Your task to perform on an android device: change timer sound Image 0: 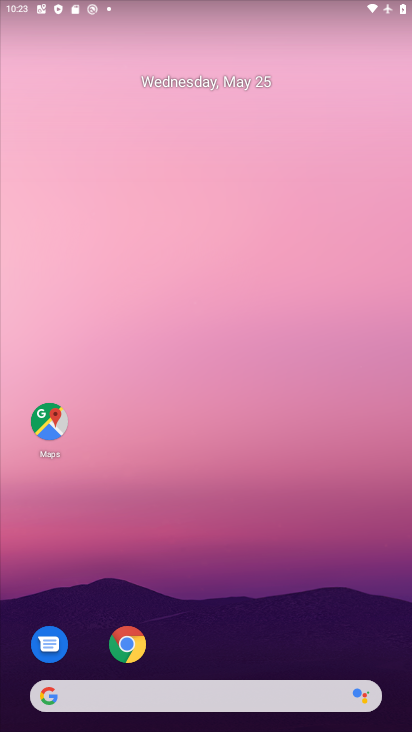
Step 0: drag from (191, 622) to (208, 32)
Your task to perform on an android device: change timer sound Image 1: 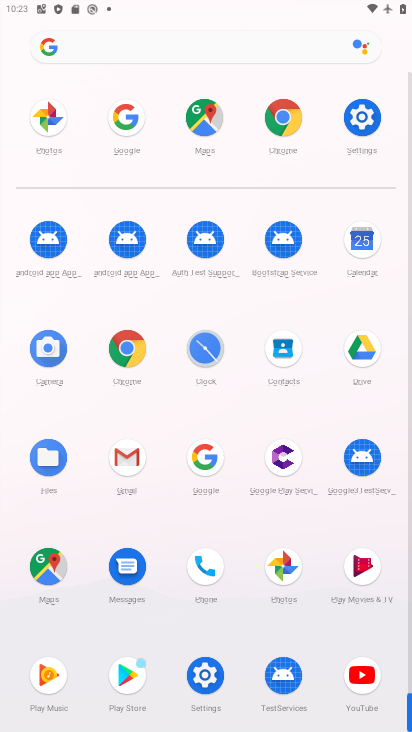
Step 1: click (206, 329)
Your task to perform on an android device: change timer sound Image 2: 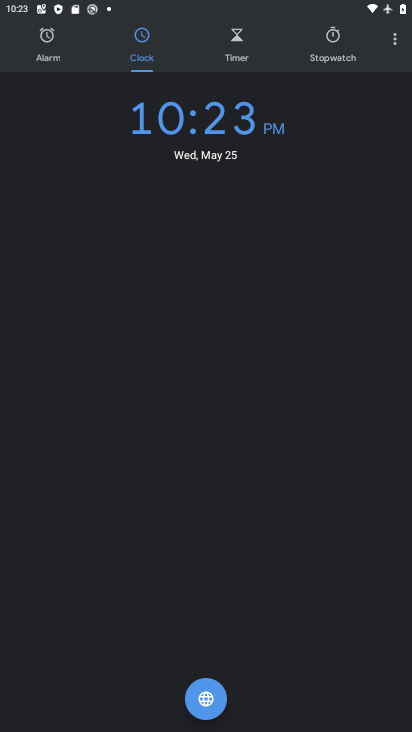
Step 2: click (386, 41)
Your task to perform on an android device: change timer sound Image 3: 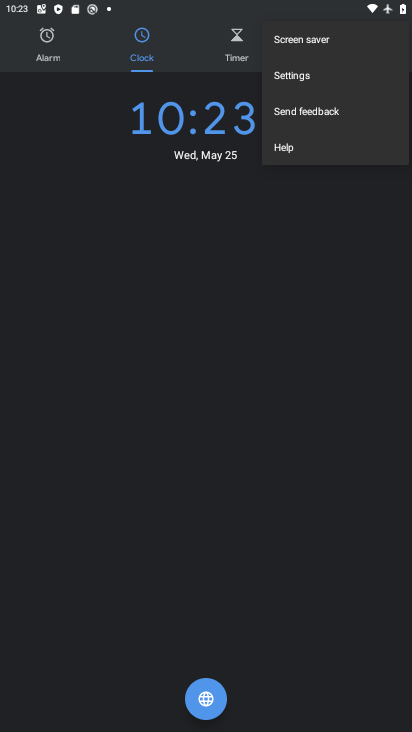
Step 3: click (323, 78)
Your task to perform on an android device: change timer sound Image 4: 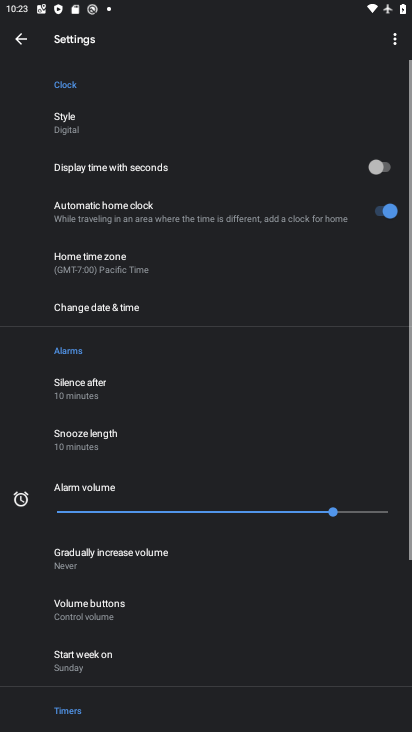
Step 4: drag from (222, 559) to (229, 142)
Your task to perform on an android device: change timer sound Image 5: 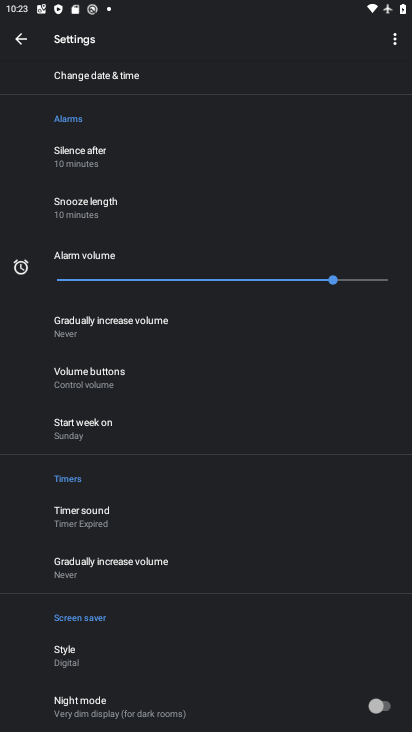
Step 5: click (94, 518)
Your task to perform on an android device: change timer sound Image 6: 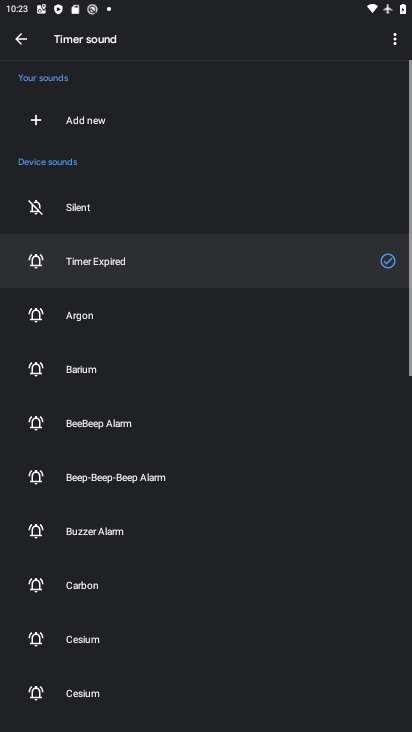
Step 6: click (90, 320)
Your task to perform on an android device: change timer sound Image 7: 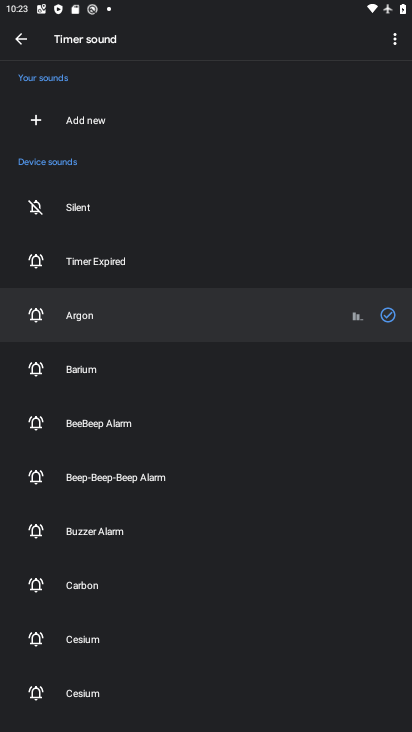
Step 7: task complete